Your task to perform on an android device: Go to privacy settings Image 0: 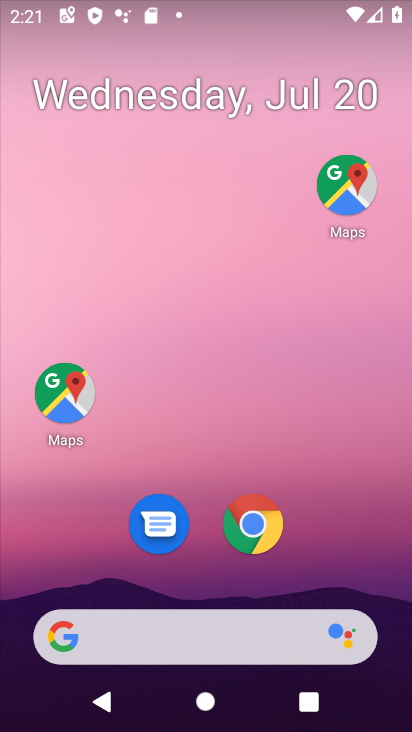
Step 0: drag from (351, 539) to (240, 47)
Your task to perform on an android device: Go to privacy settings Image 1: 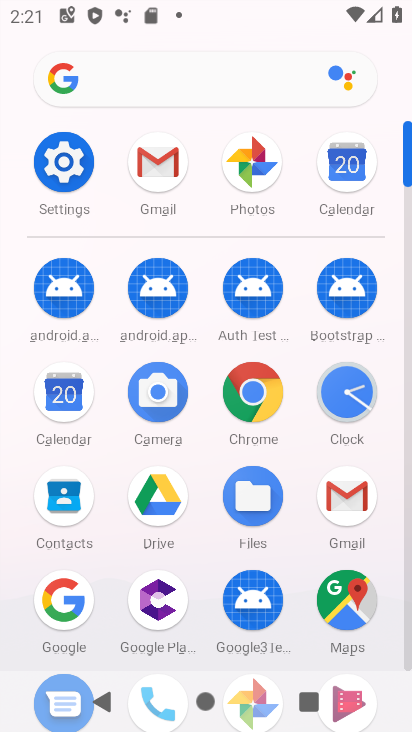
Step 1: click (74, 154)
Your task to perform on an android device: Go to privacy settings Image 2: 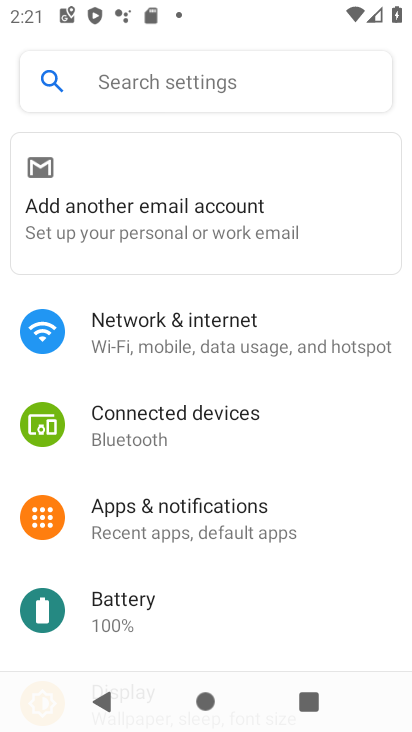
Step 2: drag from (145, 463) to (158, 66)
Your task to perform on an android device: Go to privacy settings Image 3: 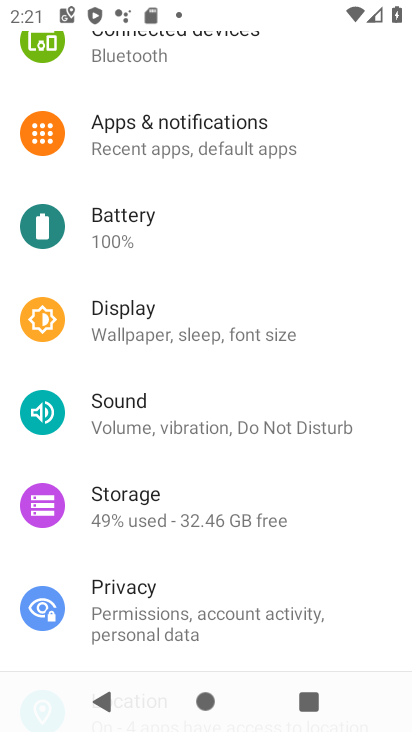
Step 3: click (146, 610)
Your task to perform on an android device: Go to privacy settings Image 4: 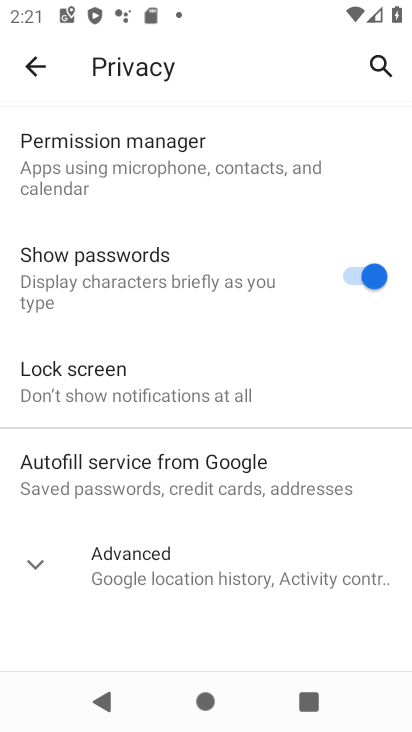
Step 4: task complete